Your task to perform on an android device: snooze an email in the gmail app Image 0: 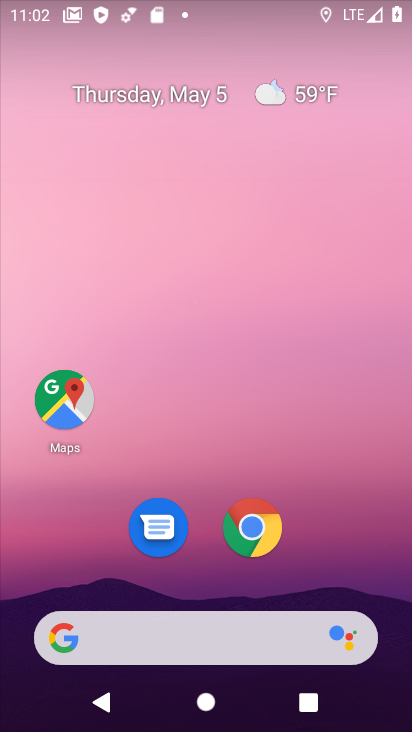
Step 0: drag from (192, 578) to (204, 13)
Your task to perform on an android device: snooze an email in the gmail app Image 1: 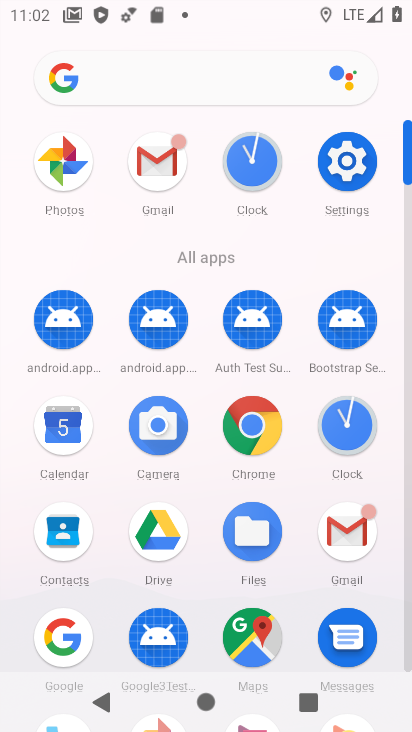
Step 1: click (345, 540)
Your task to perform on an android device: snooze an email in the gmail app Image 2: 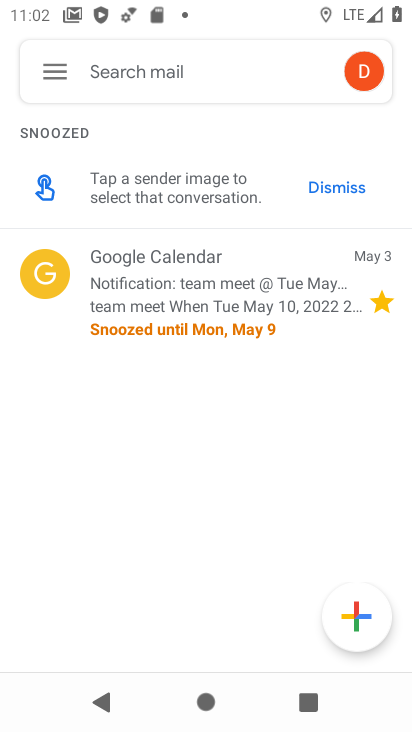
Step 2: click (56, 70)
Your task to perform on an android device: snooze an email in the gmail app Image 3: 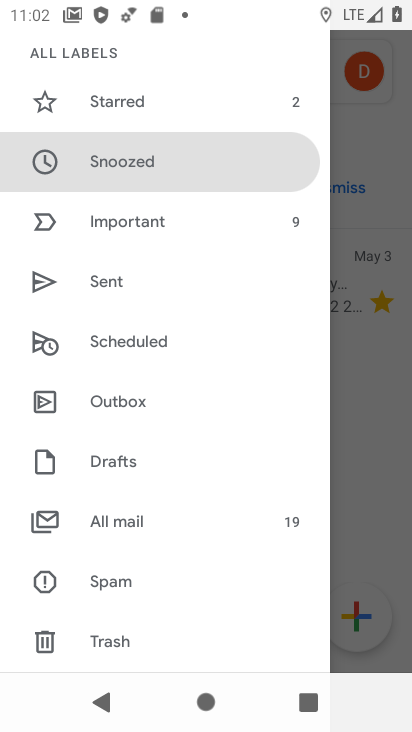
Step 3: click (137, 519)
Your task to perform on an android device: snooze an email in the gmail app Image 4: 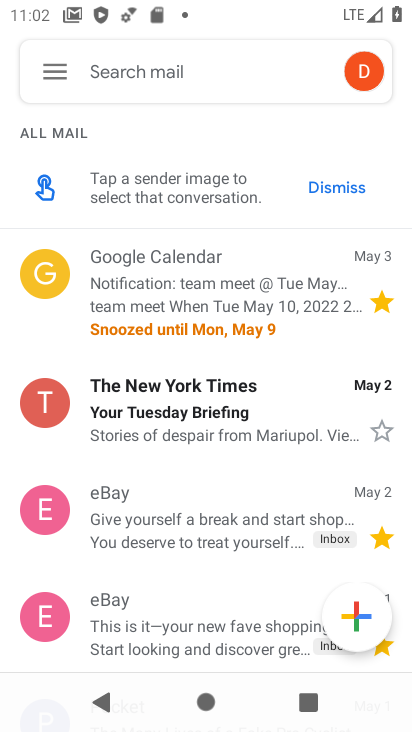
Step 4: click (46, 411)
Your task to perform on an android device: snooze an email in the gmail app Image 5: 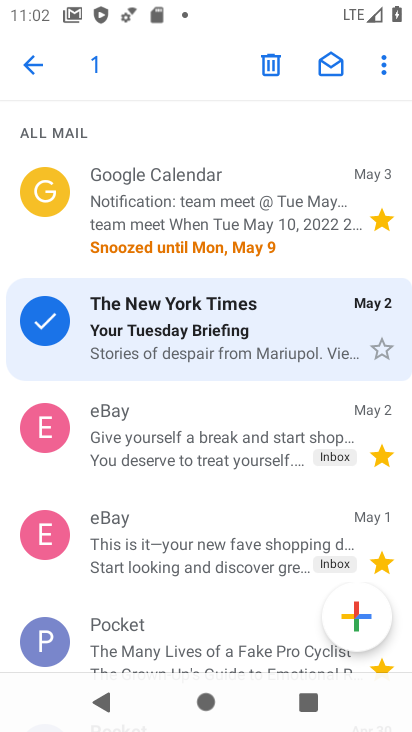
Step 5: click (384, 66)
Your task to perform on an android device: snooze an email in the gmail app Image 6: 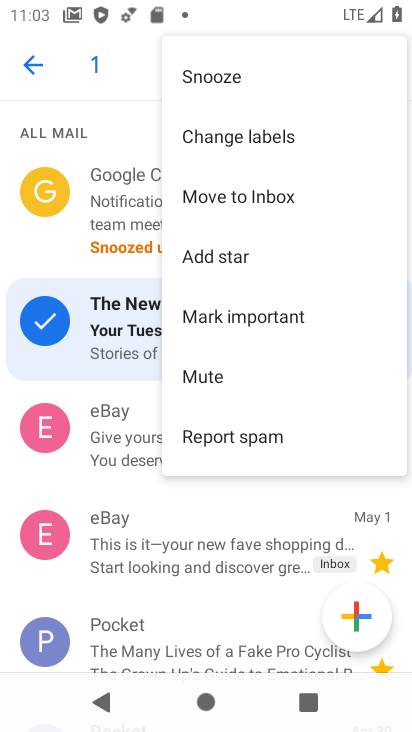
Step 6: click (219, 77)
Your task to perform on an android device: snooze an email in the gmail app Image 7: 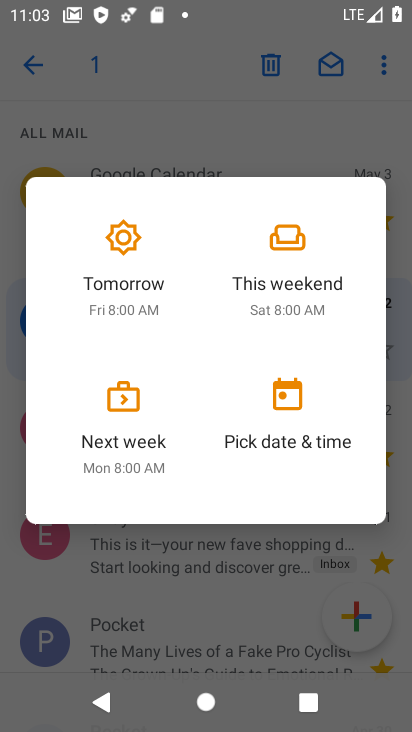
Step 7: click (138, 274)
Your task to perform on an android device: snooze an email in the gmail app Image 8: 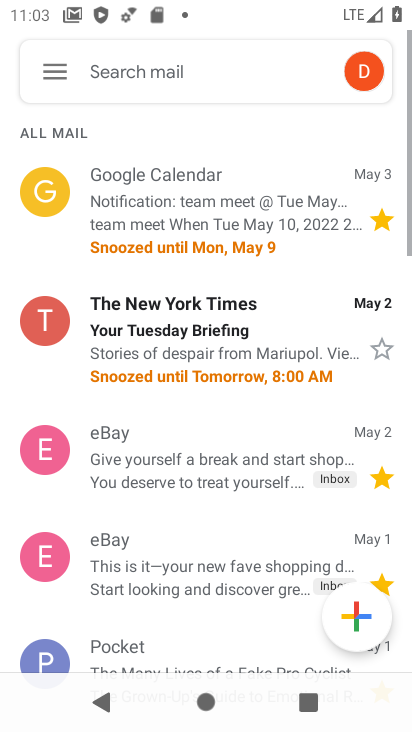
Step 8: task complete